Your task to perform on an android device: Open calendar and show me the first week of next month Image 0: 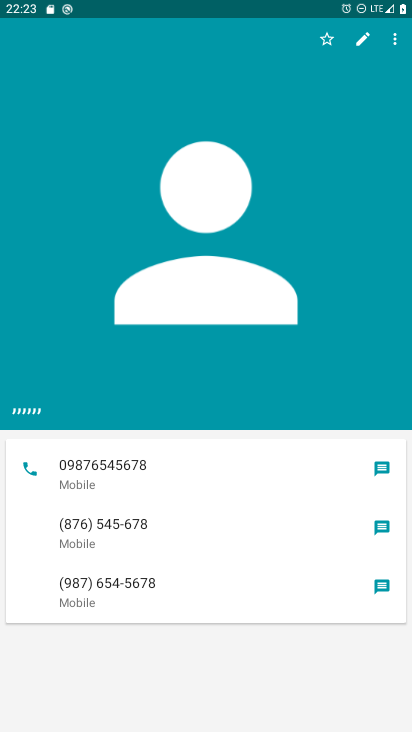
Step 0: press home button
Your task to perform on an android device: Open calendar and show me the first week of next month Image 1: 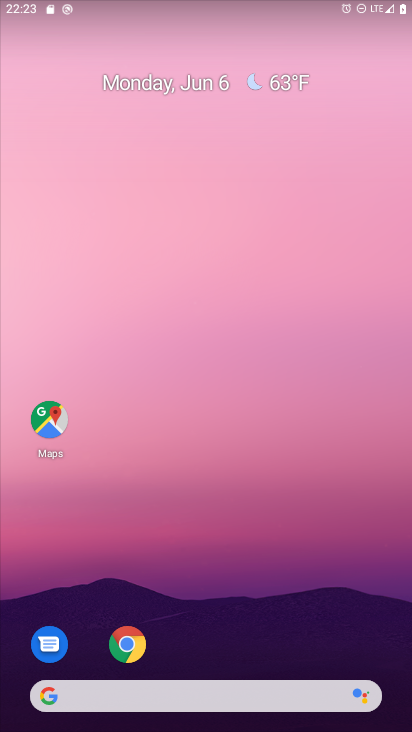
Step 1: drag from (190, 712) to (173, 277)
Your task to perform on an android device: Open calendar and show me the first week of next month Image 2: 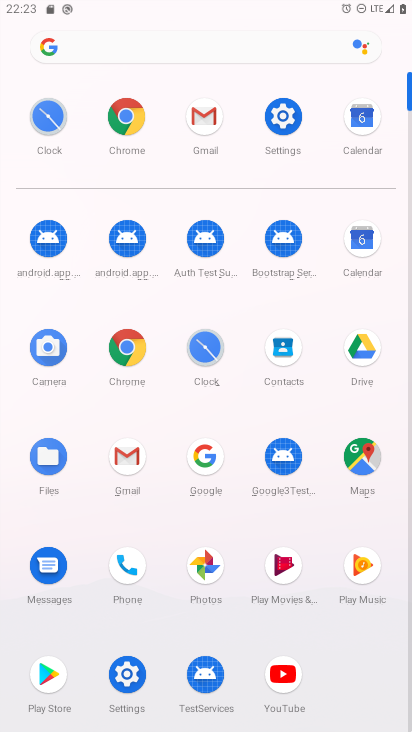
Step 2: click (353, 116)
Your task to perform on an android device: Open calendar and show me the first week of next month Image 3: 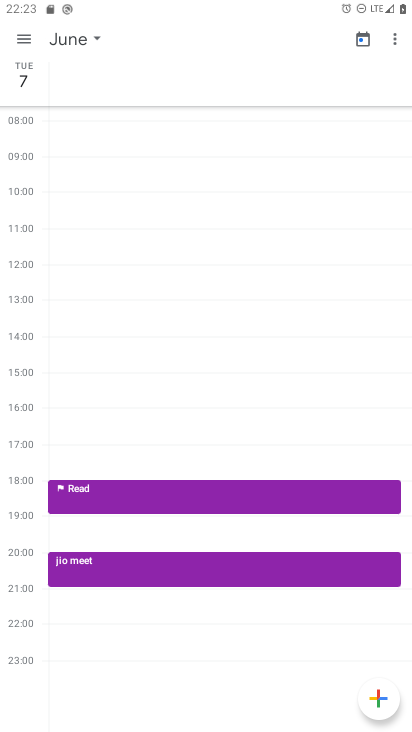
Step 3: click (24, 45)
Your task to perform on an android device: Open calendar and show me the first week of next month Image 4: 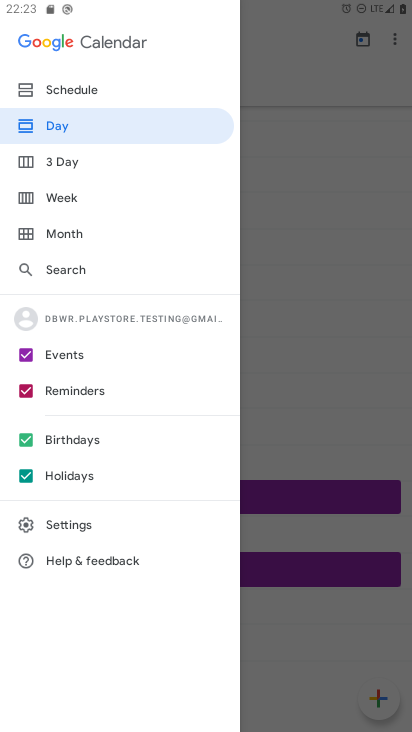
Step 4: click (73, 231)
Your task to perform on an android device: Open calendar and show me the first week of next month Image 5: 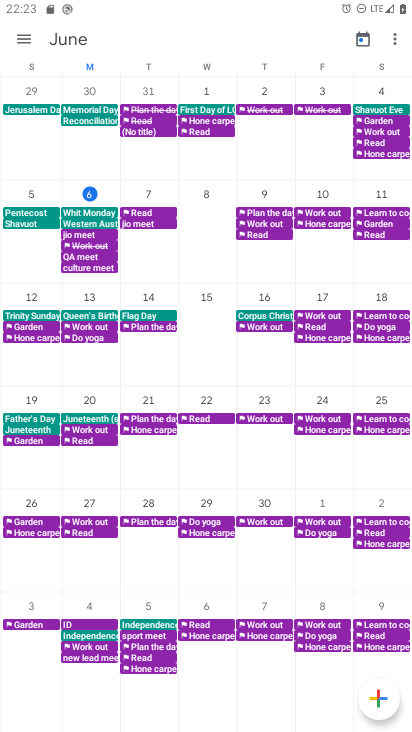
Step 5: drag from (364, 358) to (8, 432)
Your task to perform on an android device: Open calendar and show me the first week of next month Image 6: 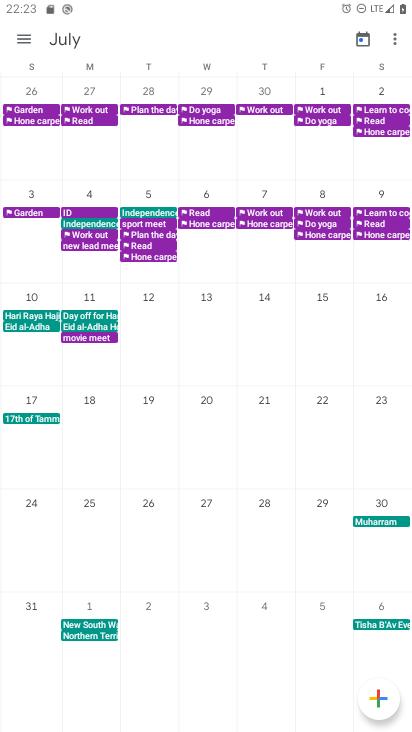
Step 6: click (88, 185)
Your task to perform on an android device: Open calendar and show me the first week of next month Image 7: 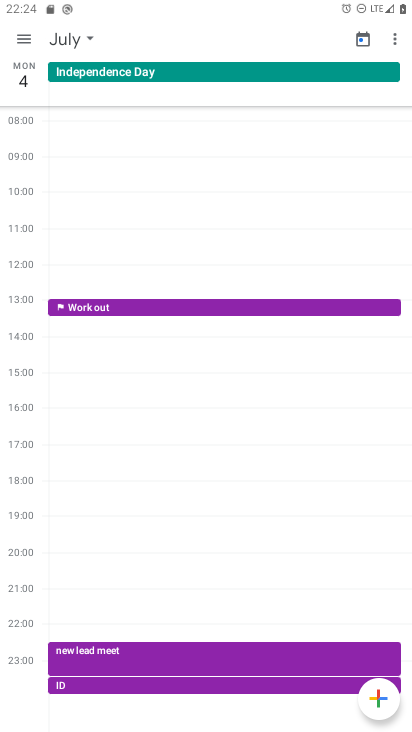
Step 7: task complete